Your task to perform on an android device: Search for the best rated coffee table on Target. Image 0: 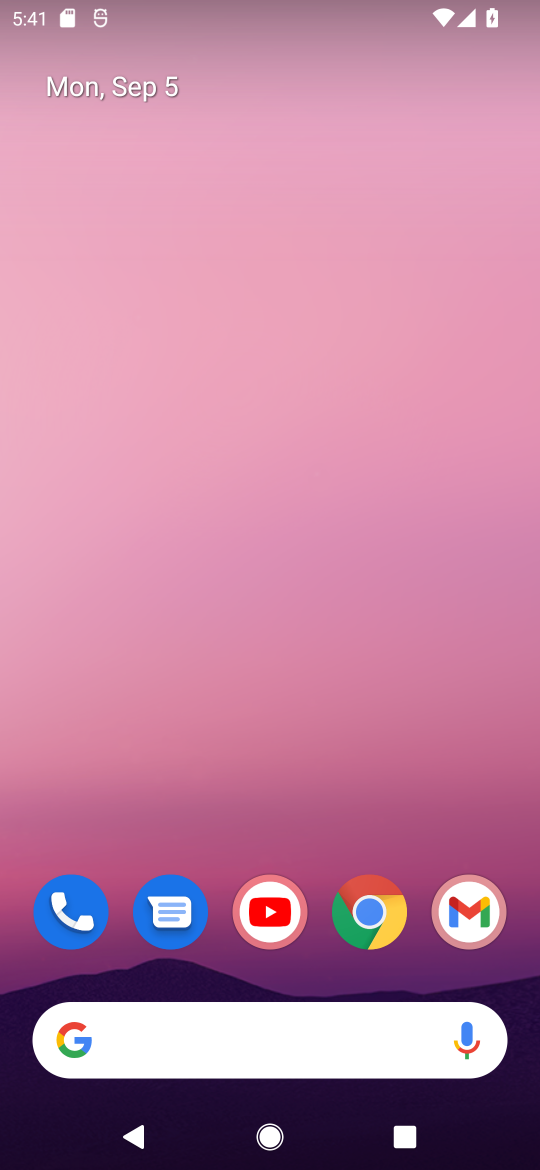
Step 0: click (366, 926)
Your task to perform on an android device: Search for the best rated coffee table on Target. Image 1: 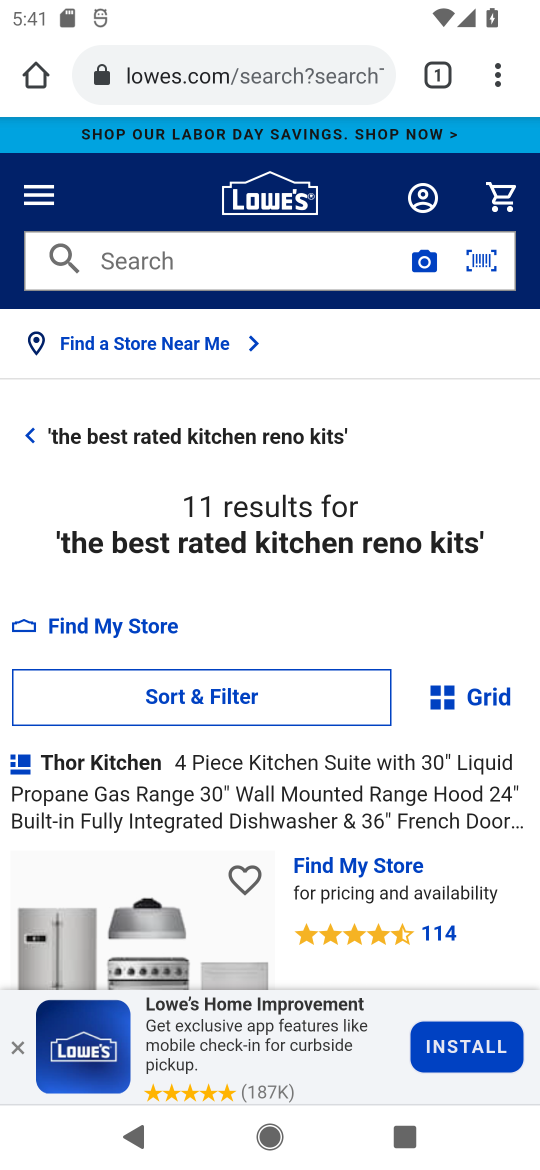
Step 1: click (275, 54)
Your task to perform on an android device: Search for the best rated coffee table on Target. Image 2: 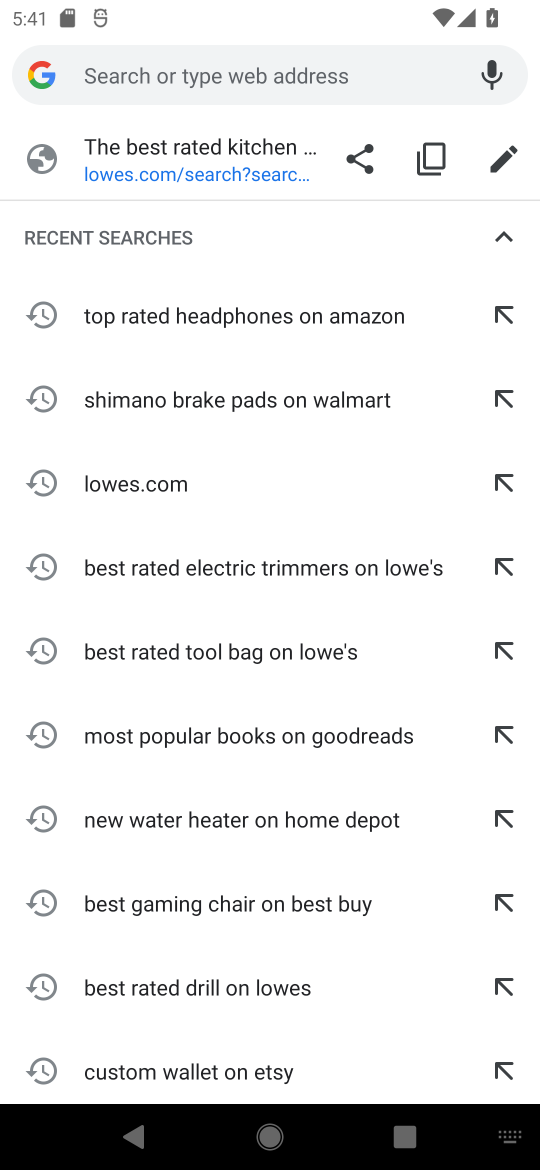
Step 2: type "target"
Your task to perform on an android device: Search for the best rated coffee table on Target. Image 3: 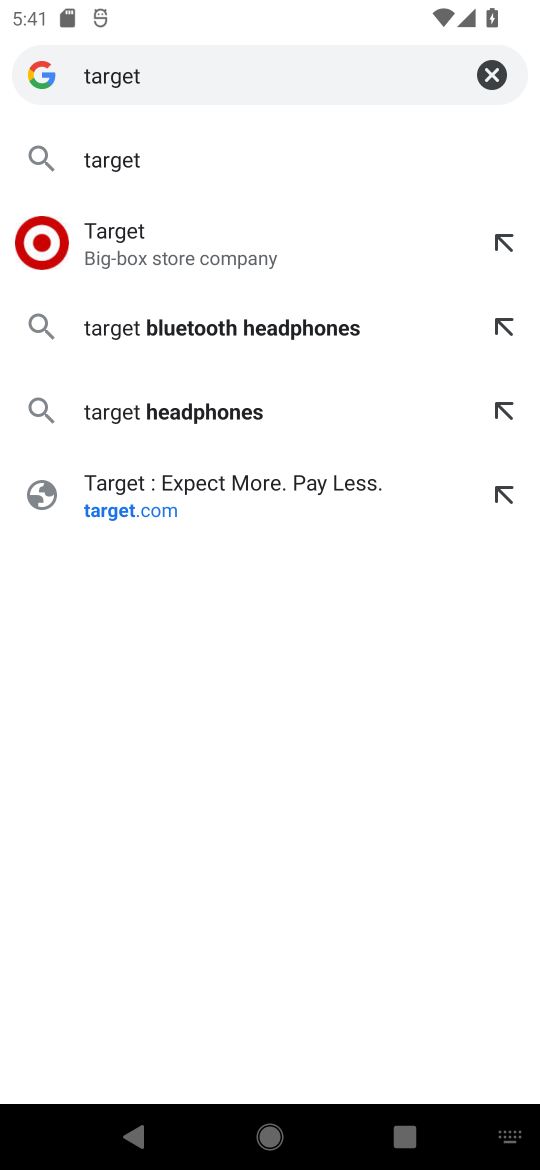
Step 3: click (108, 161)
Your task to perform on an android device: Search for the best rated coffee table on Target. Image 4: 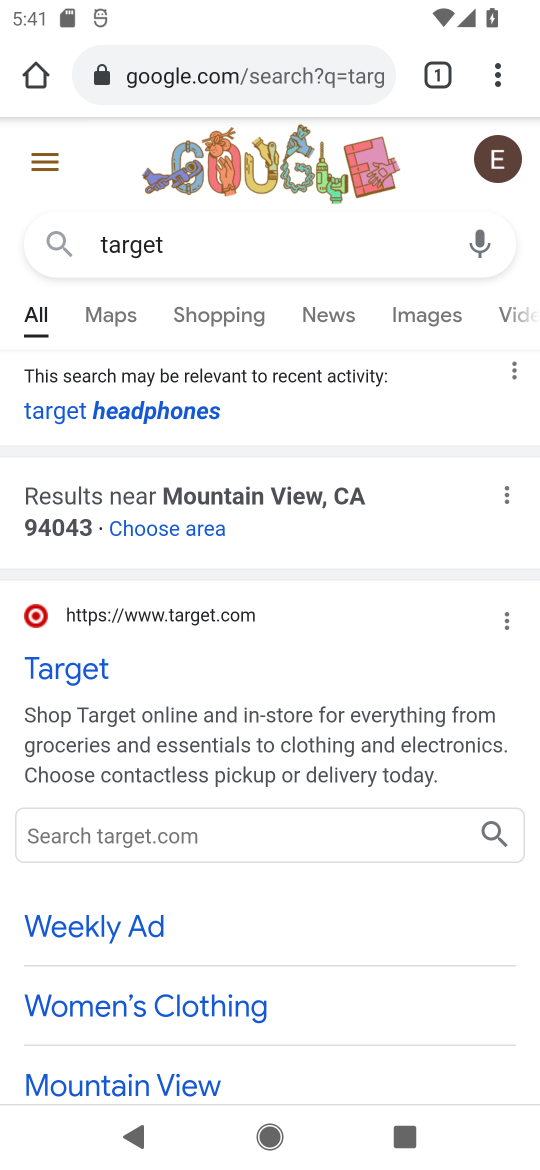
Step 4: click (95, 685)
Your task to perform on an android device: Search for the best rated coffee table on Target. Image 5: 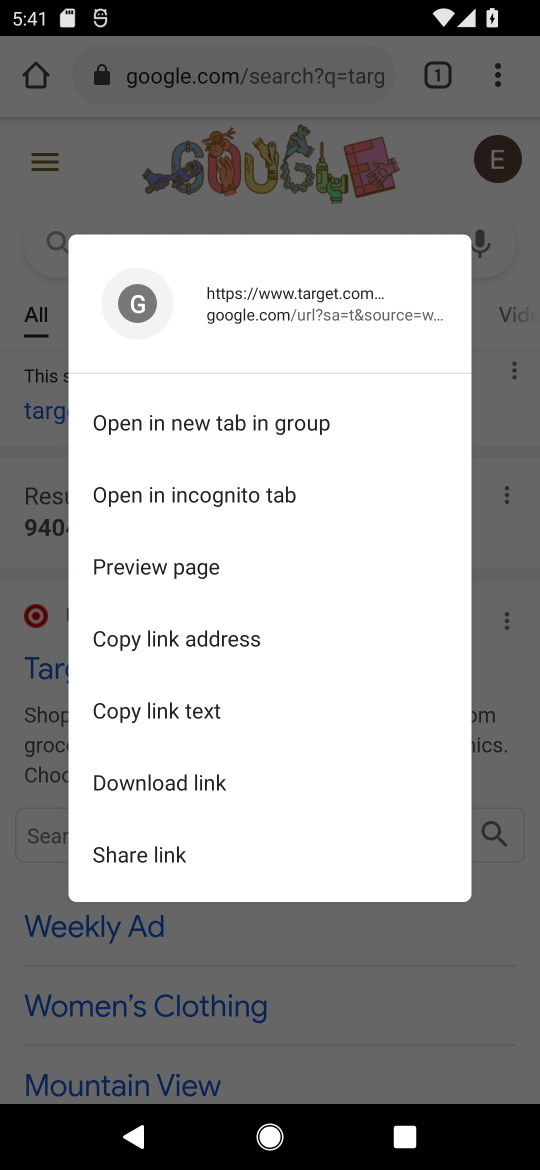
Step 5: click (43, 655)
Your task to perform on an android device: Search for the best rated coffee table on Target. Image 6: 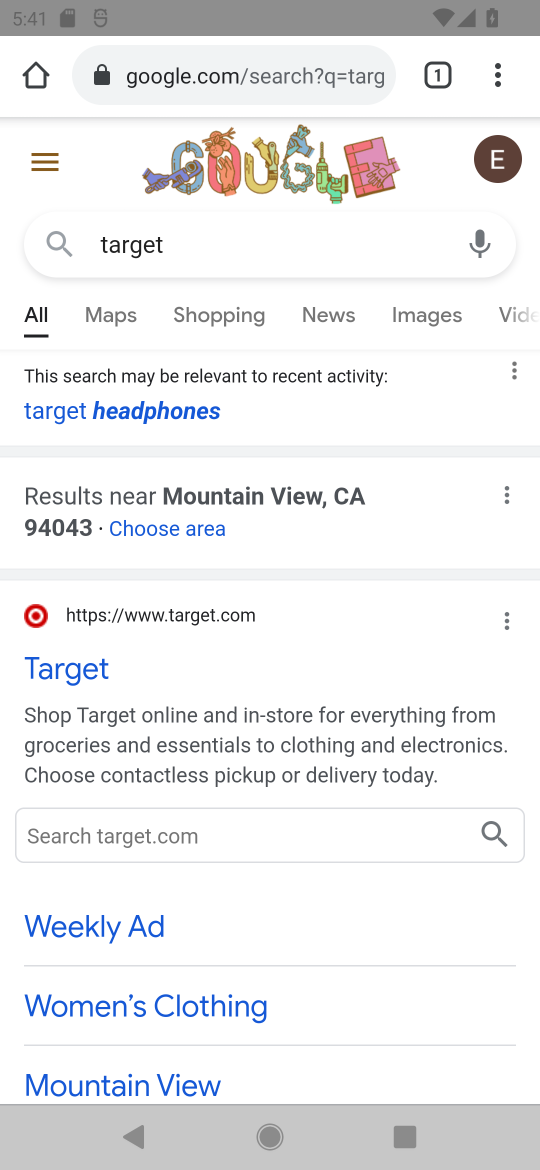
Step 6: click (43, 655)
Your task to perform on an android device: Search for the best rated coffee table on Target. Image 7: 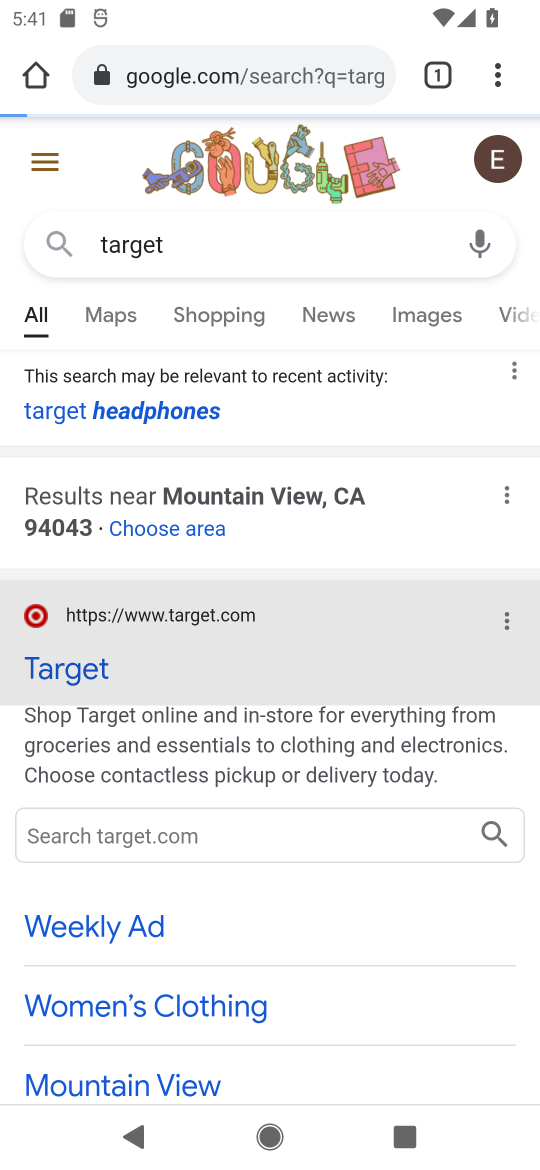
Step 7: click (43, 655)
Your task to perform on an android device: Search for the best rated coffee table on Target. Image 8: 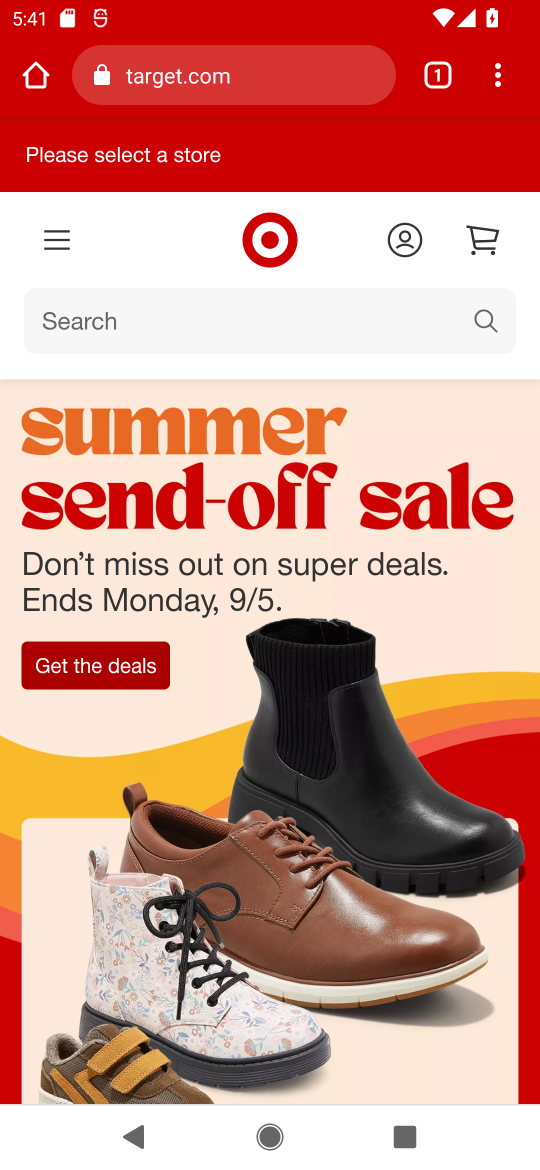
Step 8: click (363, 305)
Your task to perform on an android device: Search for the best rated coffee table on Target. Image 9: 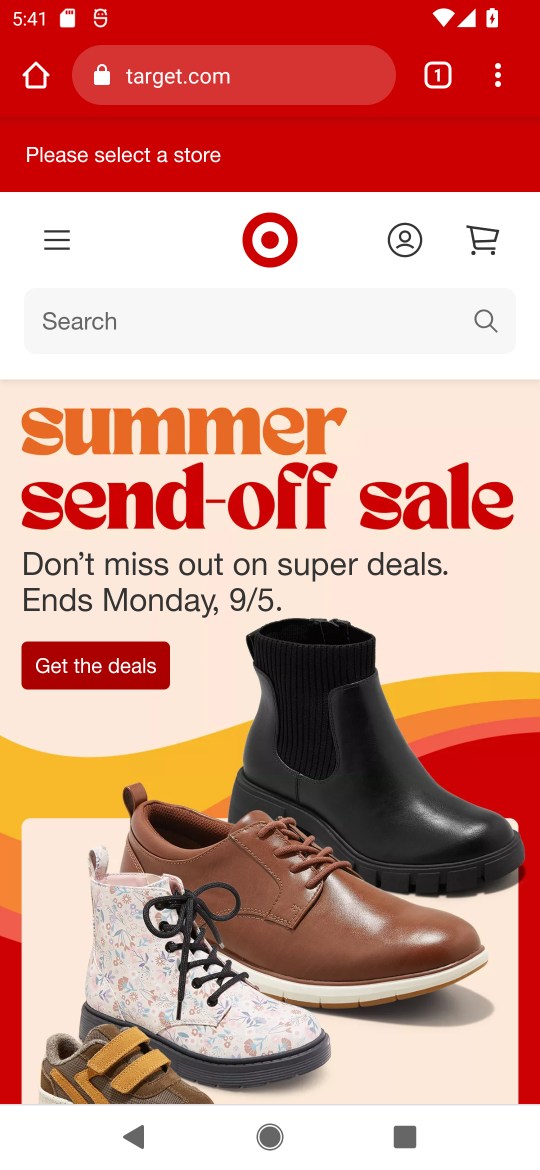
Step 9: click (265, 319)
Your task to perform on an android device: Search for the best rated coffee table on Target. Image 10: 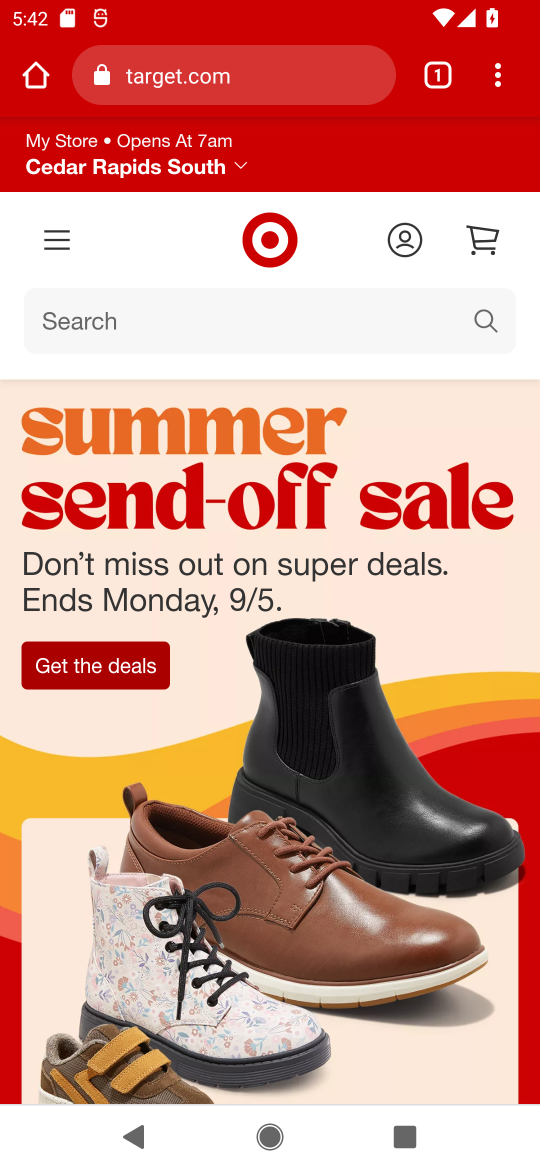
Step 10: click (254, 314)
Your task to perform on an android device: Search for the best rated coffee table on Target. Image 11: 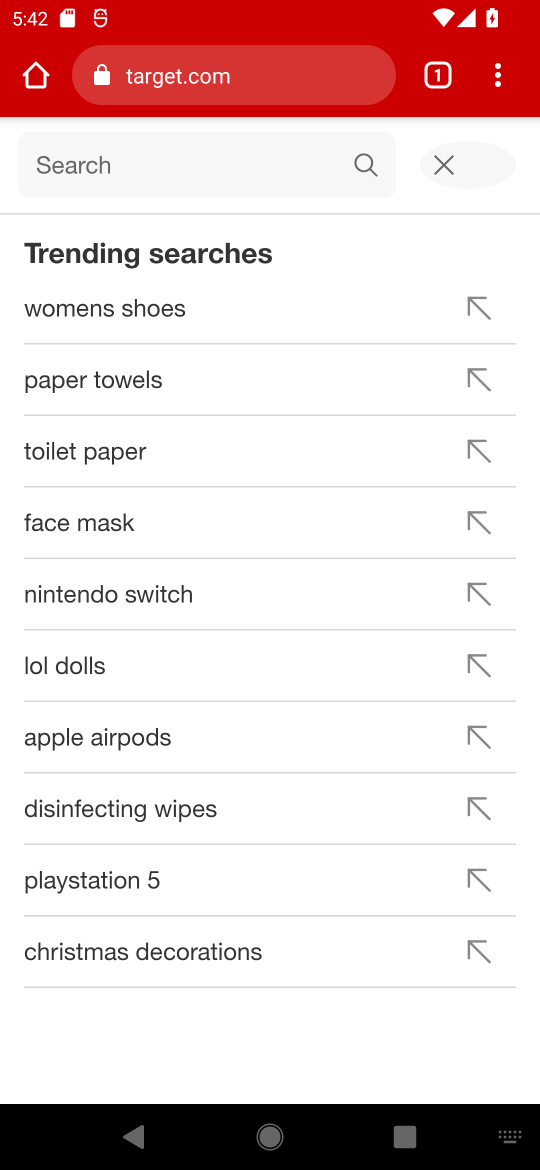
Step 11: type "the best rated coffee table"
Your task to perform on an android device: Search for the best rated coffee table on Target. Image 12: 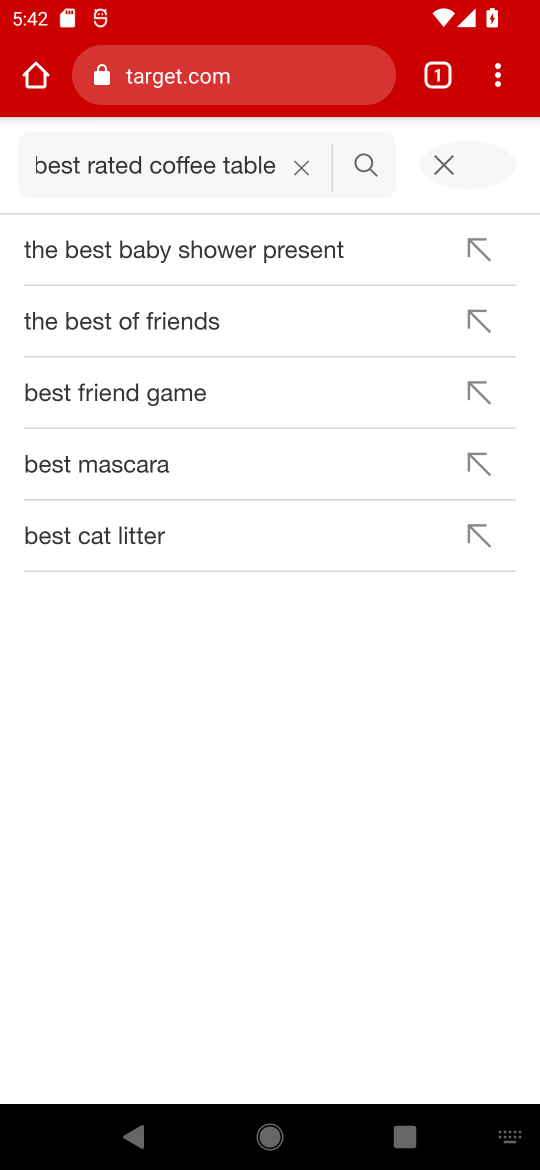
Step 12: click (363, 171)
Your task to perform on an android device: Search for the best rated coffee table on Target. Image 13: 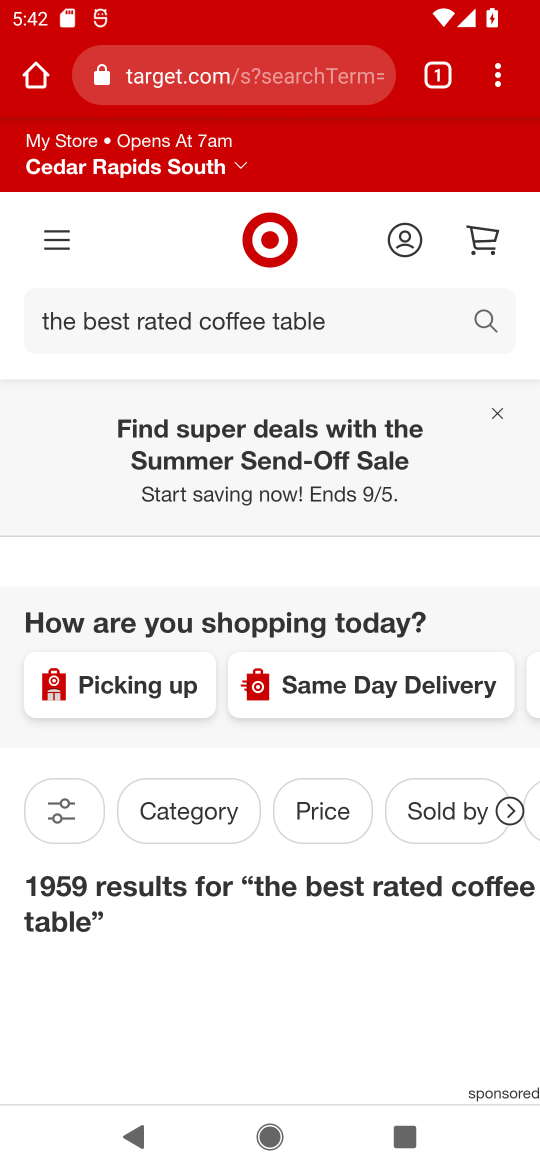
Step 13: click (363, 171)
Your task to perform on an android device: Search for the best rated coffee table on Target. Image 14: 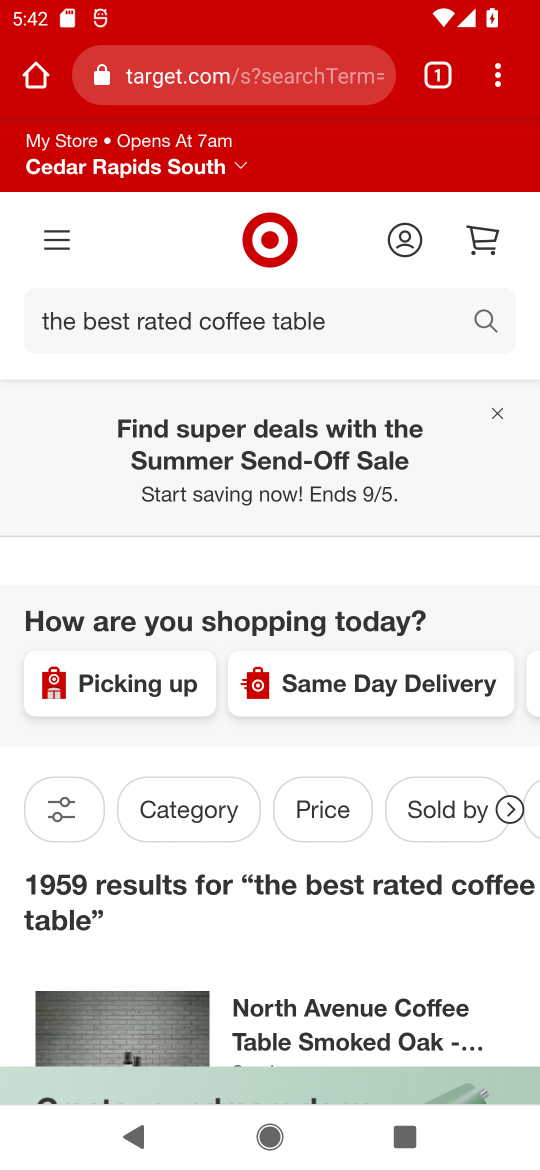
Step 14: task complete